Your task to perform on an android device: turn on the 12-hour format for clock Image 0: 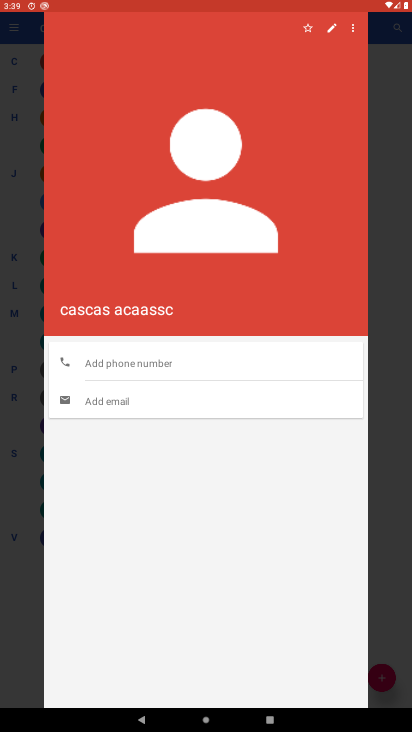
Step 0: press home button
Your task to perform on an android device: turn on the 12-hour format for clock Image 1: 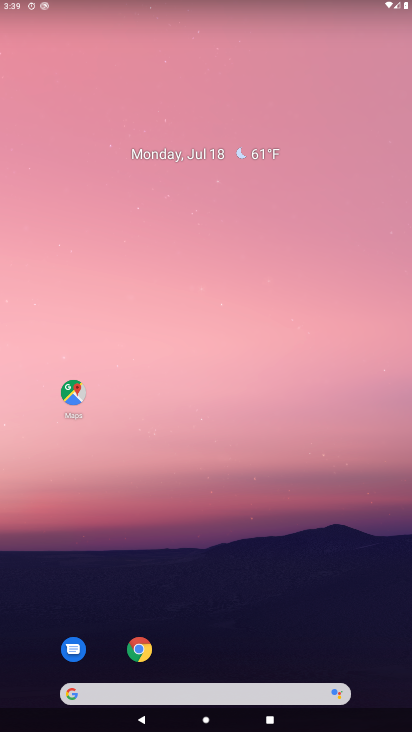
Step 1: drag from (45, 623) to (242, 7)
Your task to perform on an android device: turn on the 12-hour format for clock Image 2: 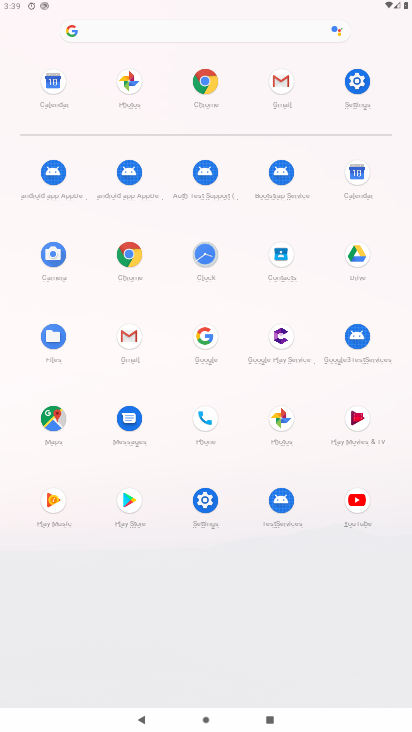
Step 2: click (211, 506)
Your task to perform on an android device: turn on the 12-hour format for clock Image 3: 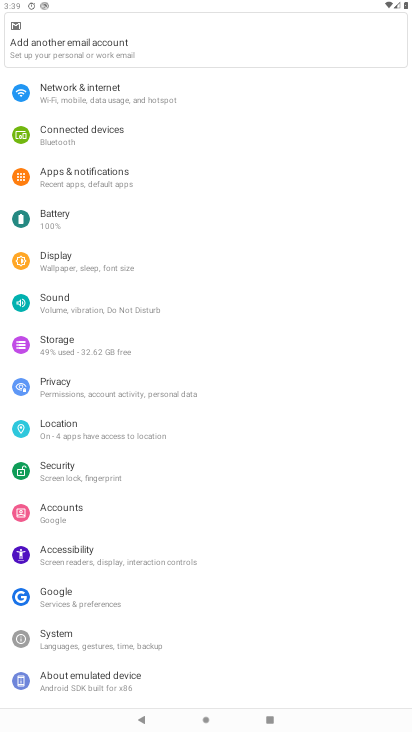
Step 3: click (144, 95)
Your task to perform on an android device: turn on the 12-hour format for clock Image 4: 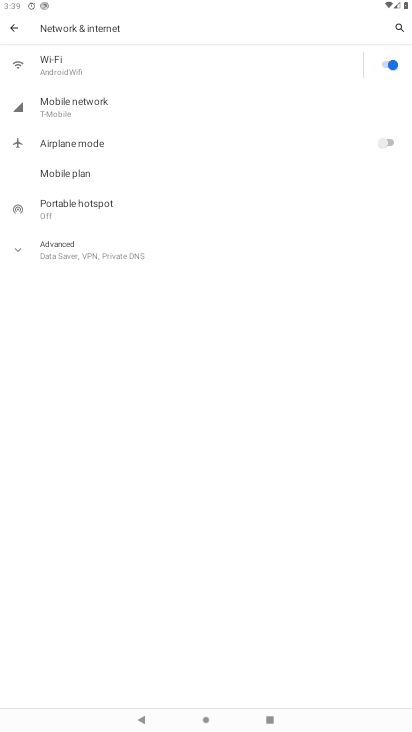
Step 4: click (96, 251)
Your task to perform on an android device: turn on the 12-hour format for clock Image 5: 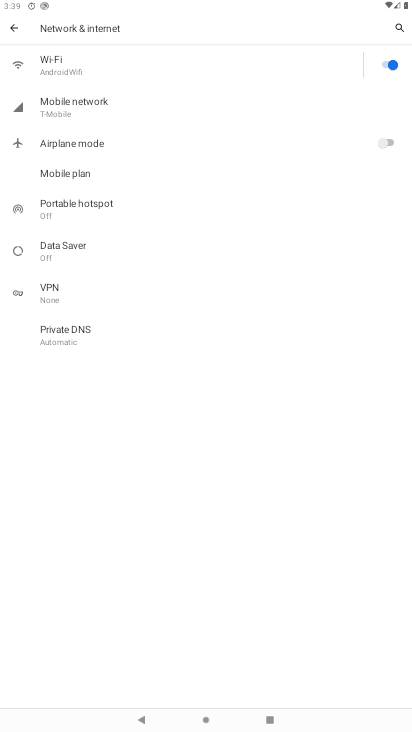
Step 5: click (10, 22)
Your task to perform on an android device: turn on the 12-hour format for clock Image 6: 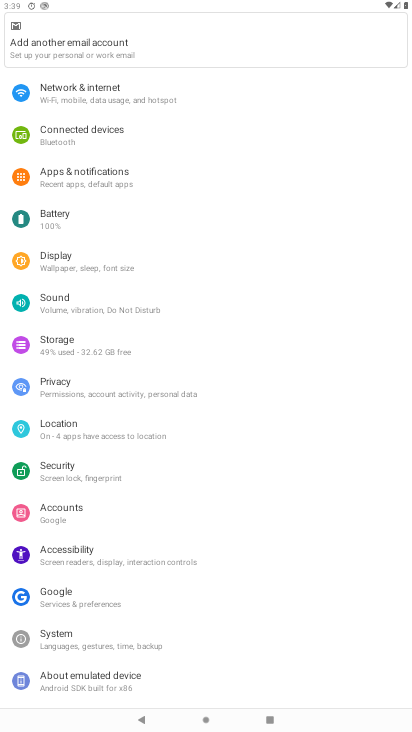
Step 6: task complete